Your task to perform on an android device: change text size in settings app Image 0: 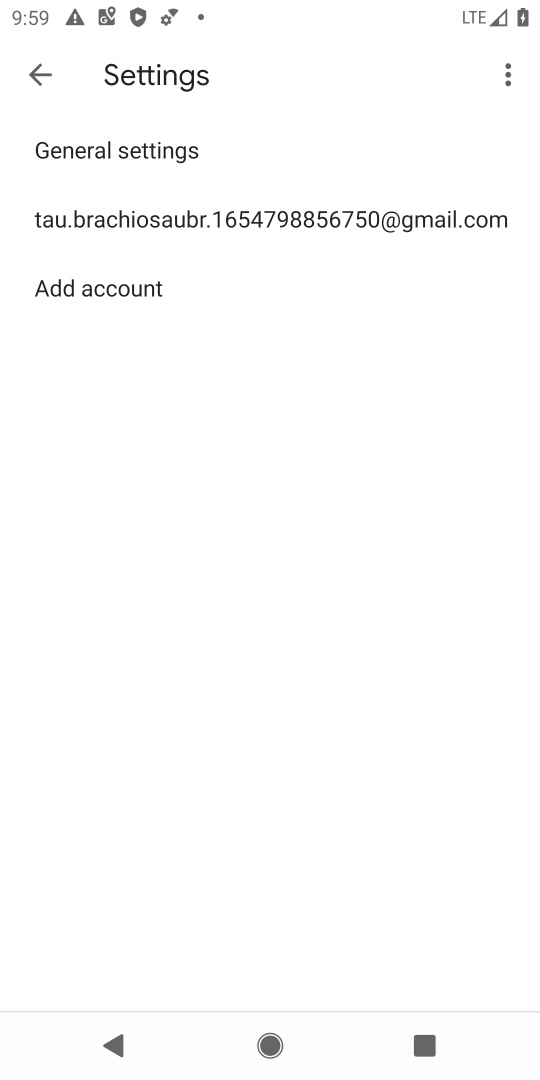
Step 0: press back button
Your task to perform on an android device: change text size in settings app Image 1: 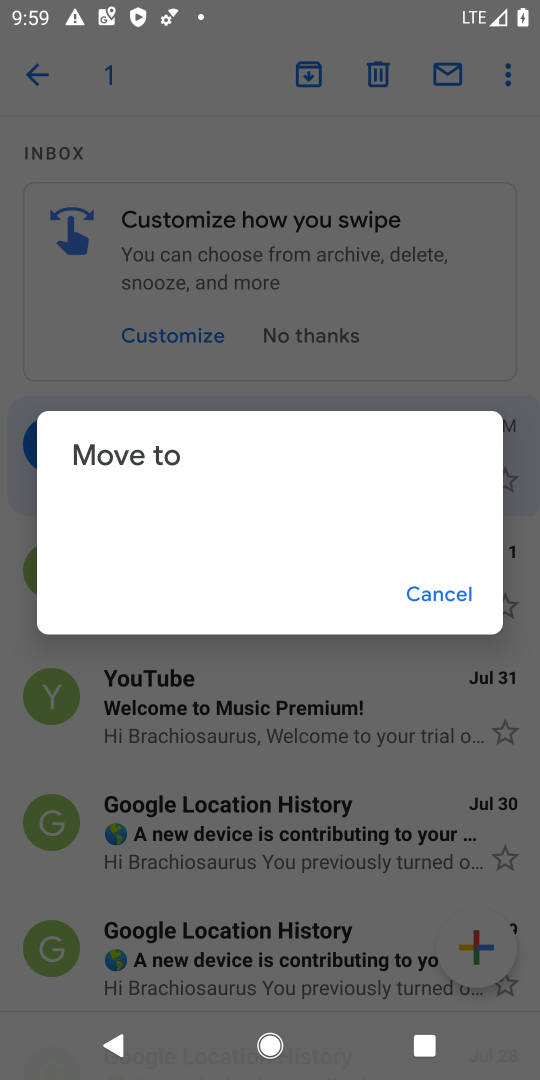
Step 1: press home button
Your task to perform on an android device: change text size in settings app Image 2: 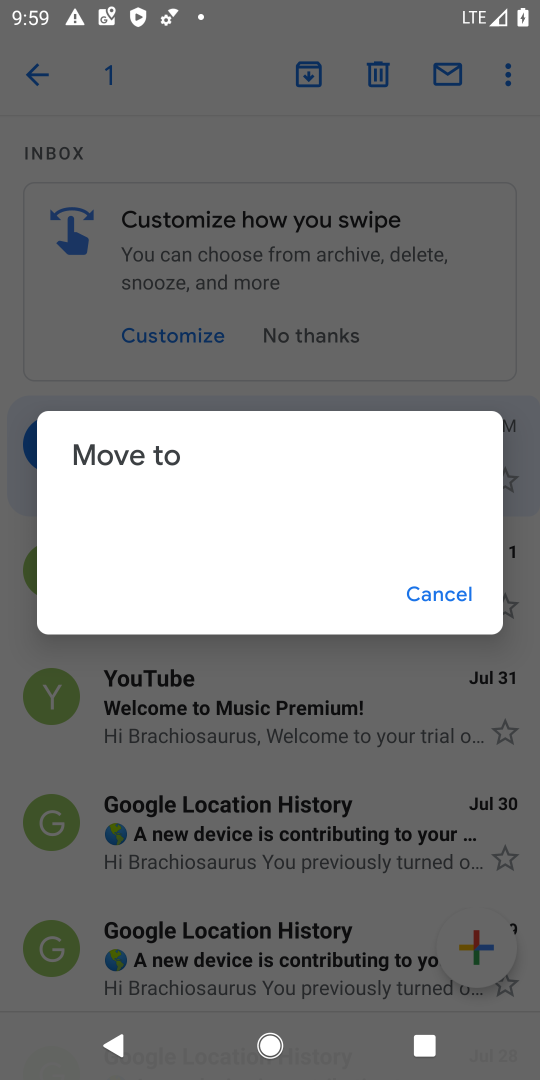
Step 2: press home button
Your task to perform on an android device: change text size in settings app Image 3: 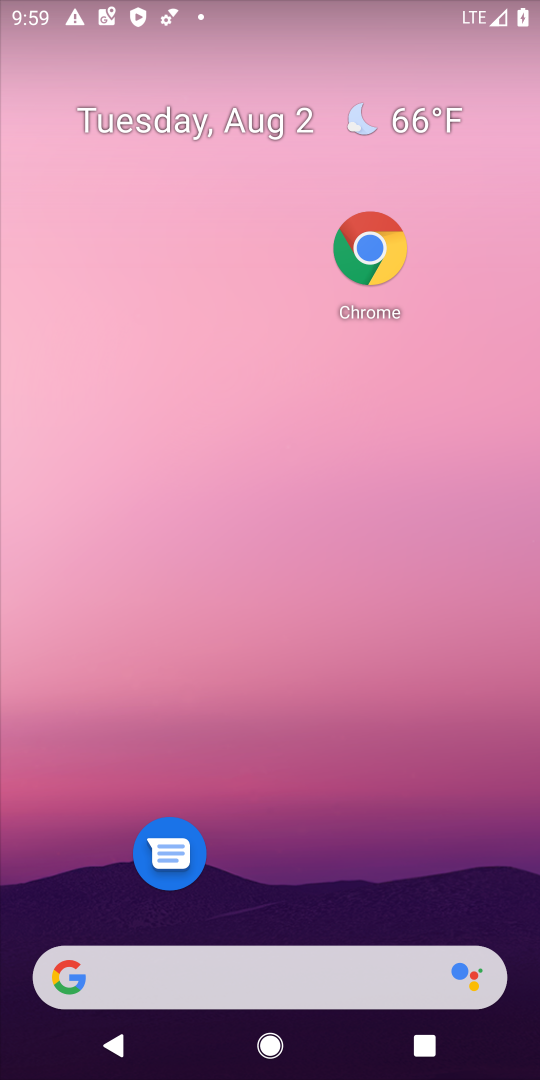
Step 3: drag from (245, 896) to (436, 1)
Your task to perform on an android device: change text size in settings app Image 4: 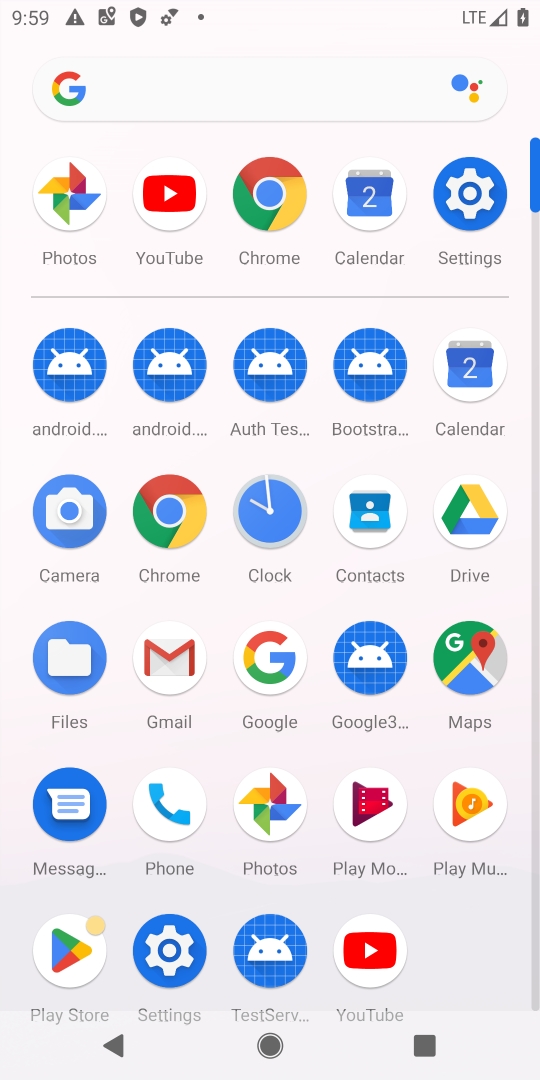
Step 4: click (173, 941)
Your task to perform on an android device: change text size in settings app Image 5: 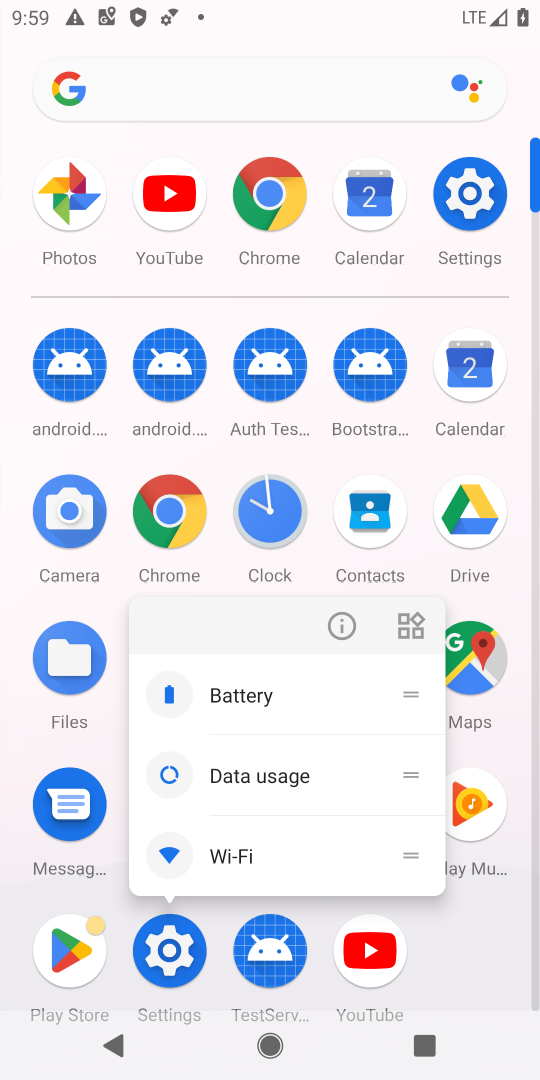
Step 5: click (164, 942)
Your task to perform on an android device: change text size in settings app Image 6: 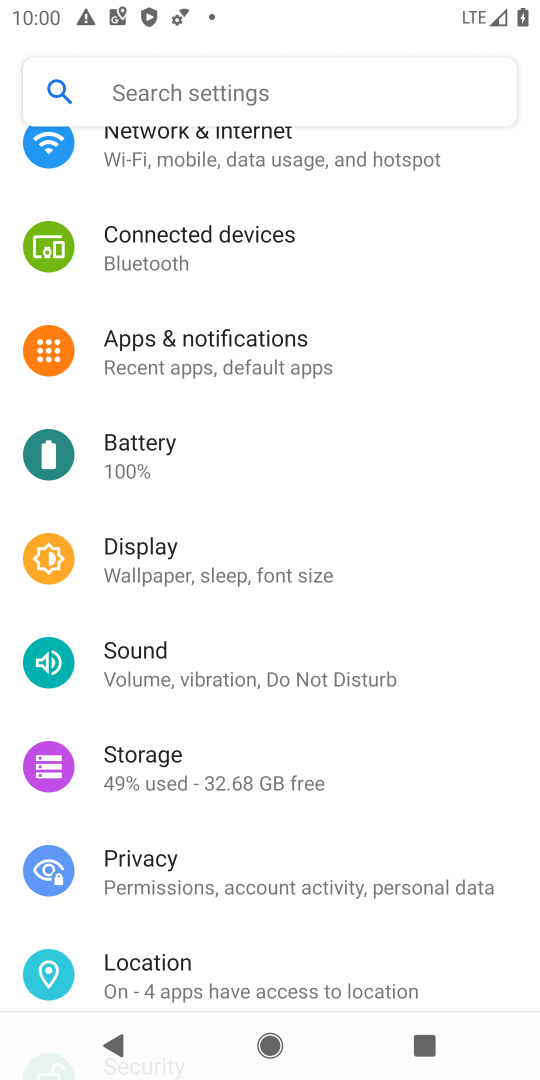
Step 6: drag from (242, 723) to (244, 98)
Your task to perform on an android device: change text size in settings app Image 7: 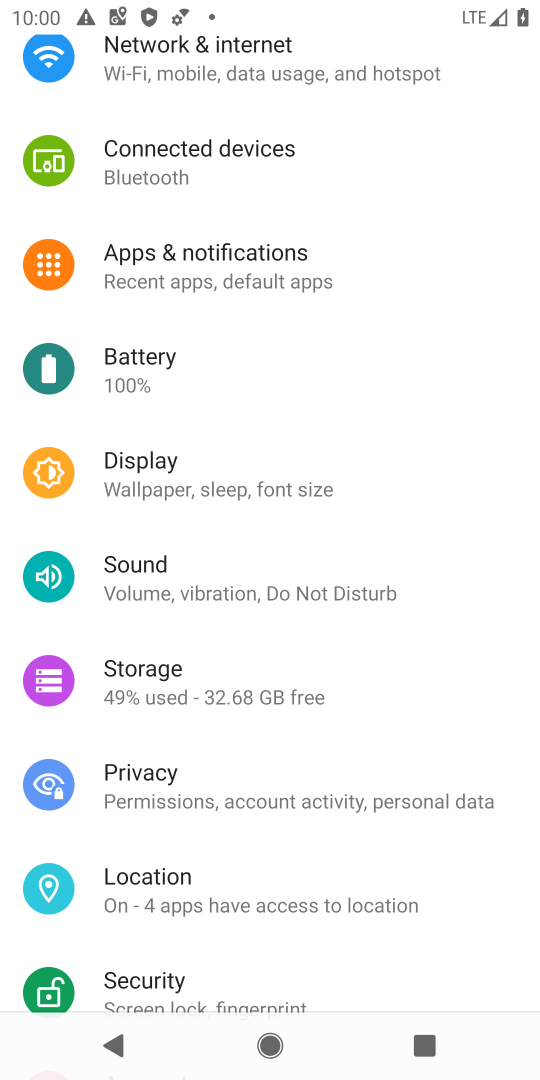
Step 7: click (163, 469)
Your task to perform on an android device: change text size in settings app Image 8: 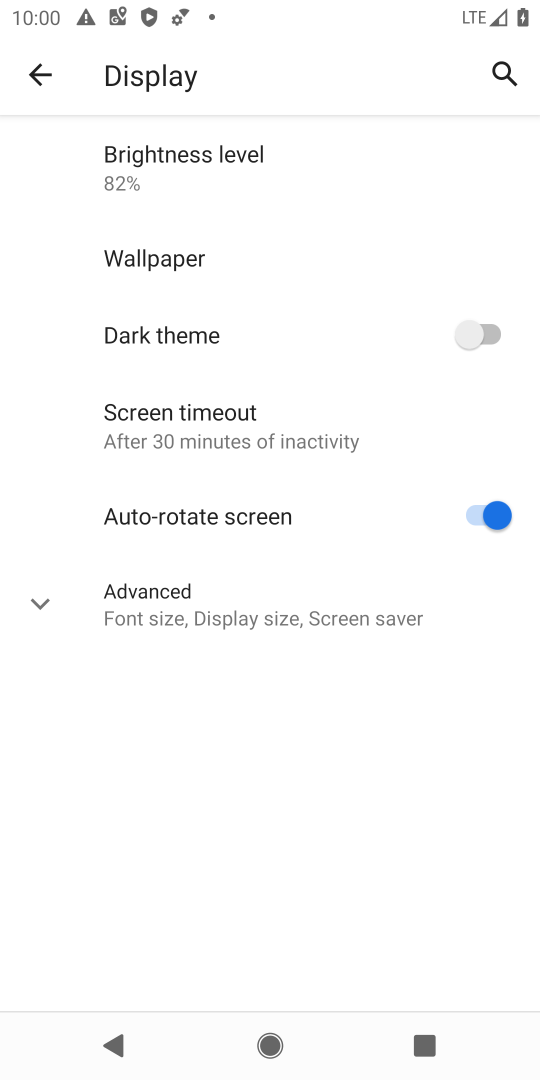
Step 8: click (108, 616)
Your task to perform on an android device: change text size in settings app Image 9: 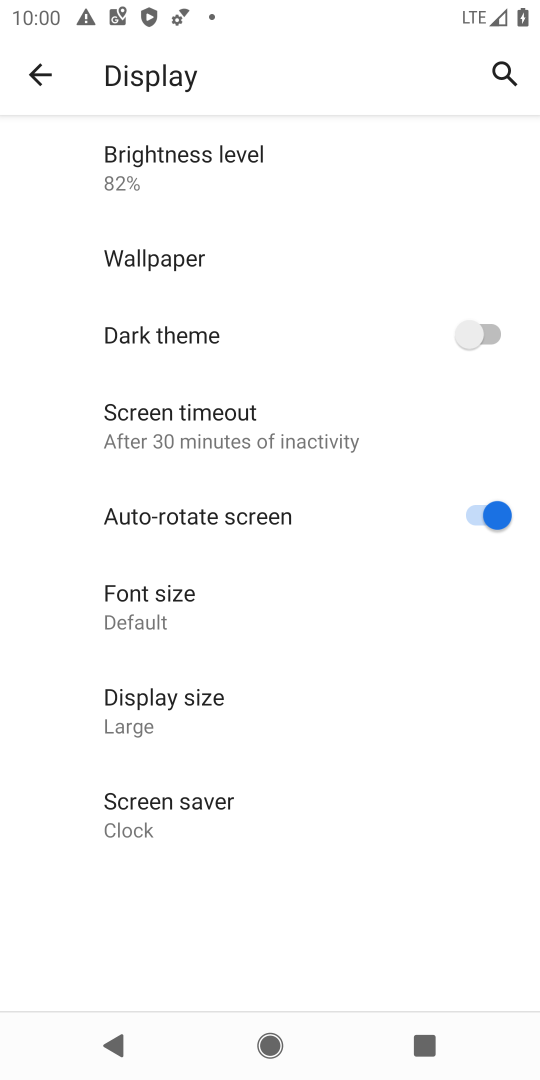
Step 9: click (146, 632)
Your task to perform on an android device: change text size in settings app Image 10: 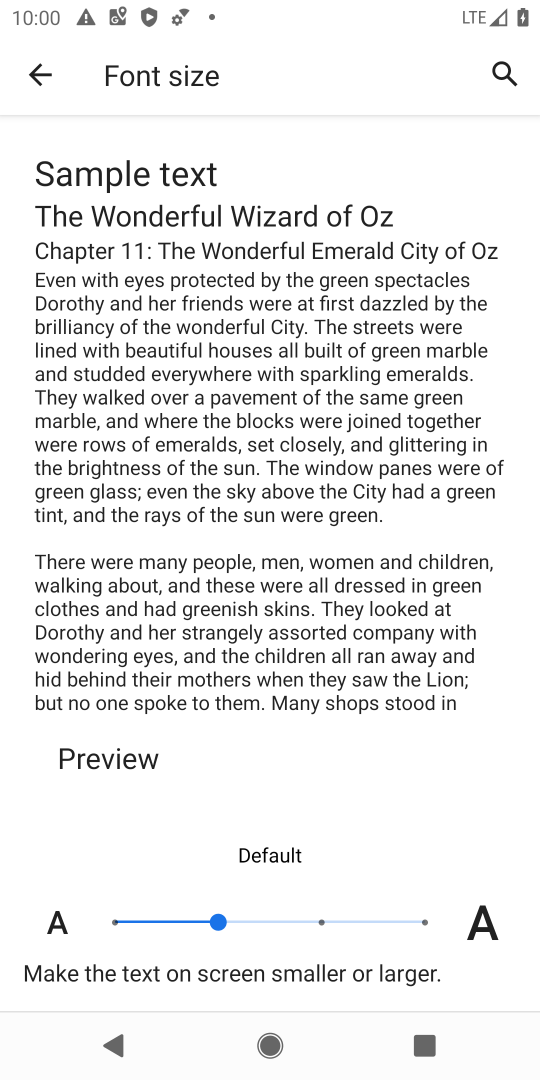
Step 10: click (310, 895)
Your task to perform on an android device: change text size in settings app Image 11: 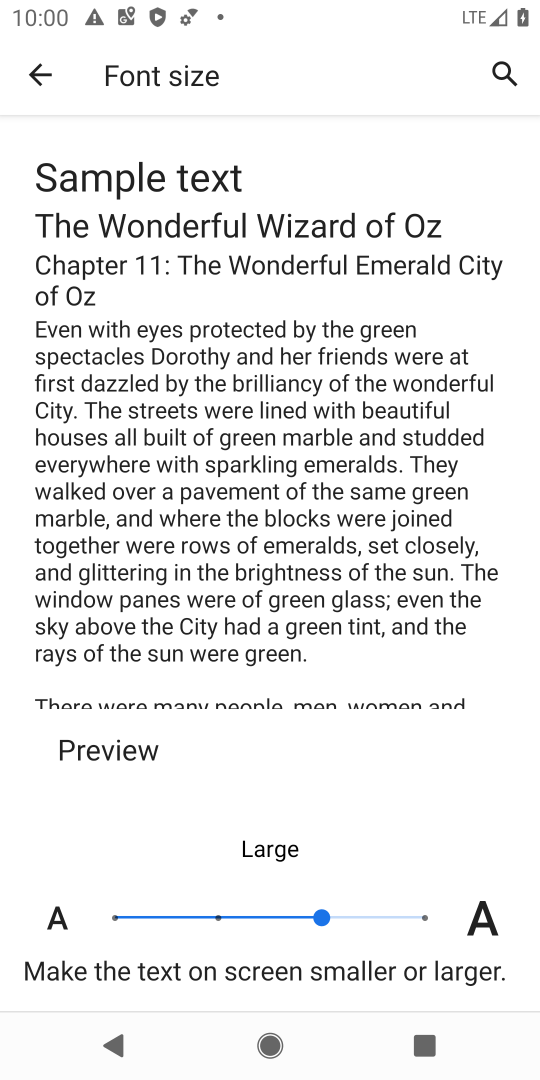
Step 11: task complete